Your task to perform on an android device: Go to Yahoo.com Image 0: 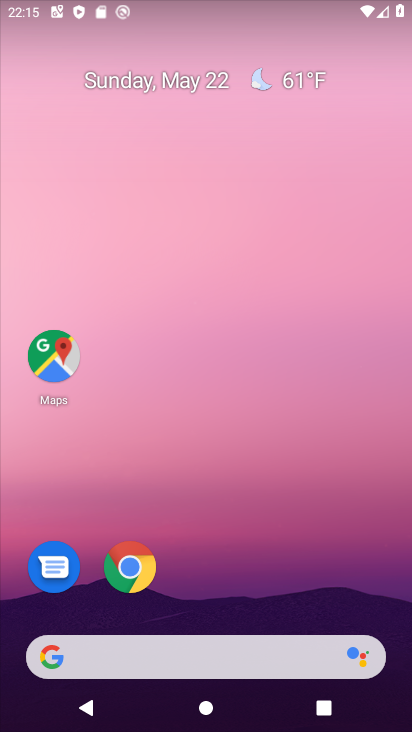
Step 0: drag from (210, 618) to (60, 25)
Your task to perform on an android device: Go to Yahoo.com Image 1: 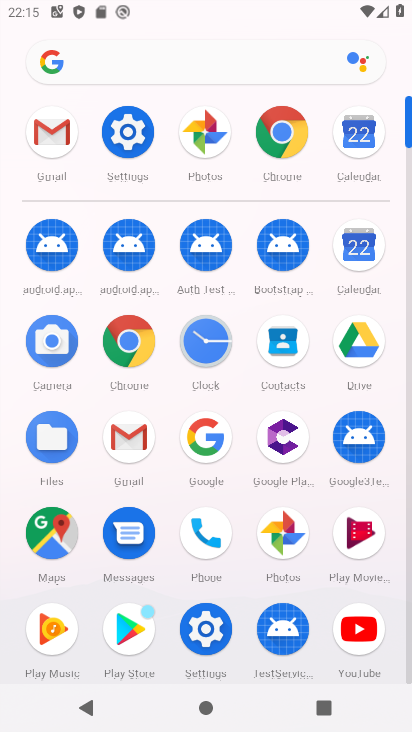
Step 1: click (133, 358)
Your task to perform on an android device: Go to Yahoo.com Image 2: 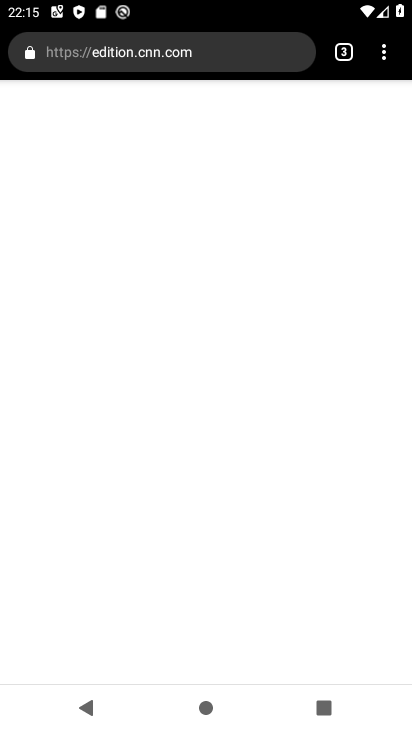
Step 2: click (332, 54)
Your task to perform on an android device: Go to Yahoo.com Image 3: 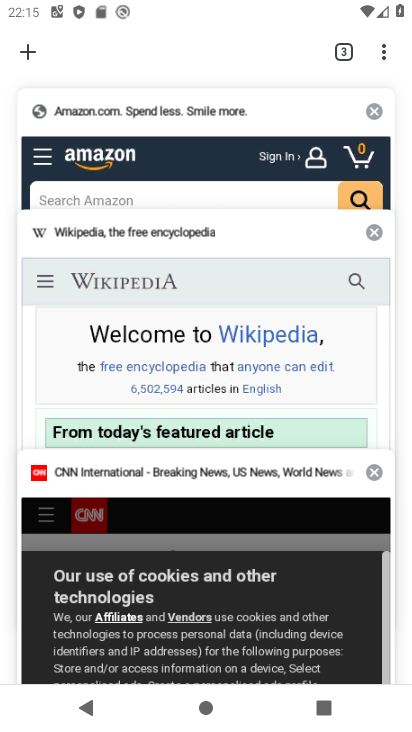
Step 3: click (35, 55)
Your task to perform on an android device: Go to Yahoo.com Image 4: 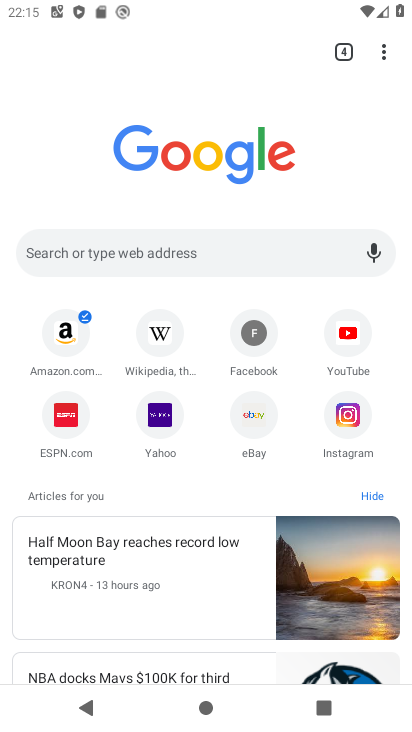
Step 4: click (167, 413)
Your task to perform on an android device: Go to Yahoo.com Image 5: 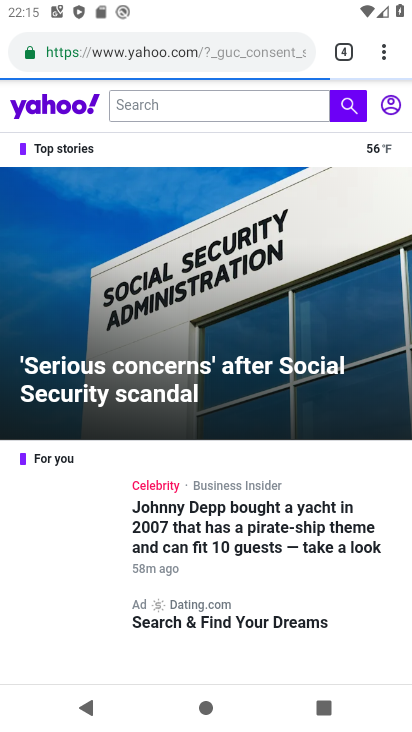
Step 5: task complete